Your task to perform on an android device: Go to Android settings Image 0: 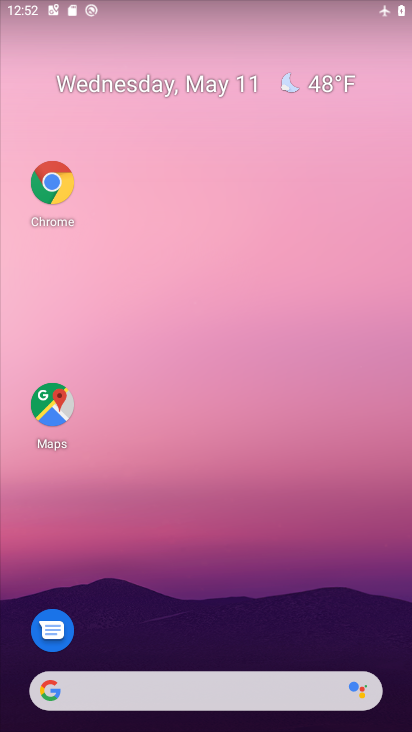
Step 0: drag from (217, 649) to (178, 22)
Your task to perform on an android device: Go to Android settings Image 1: 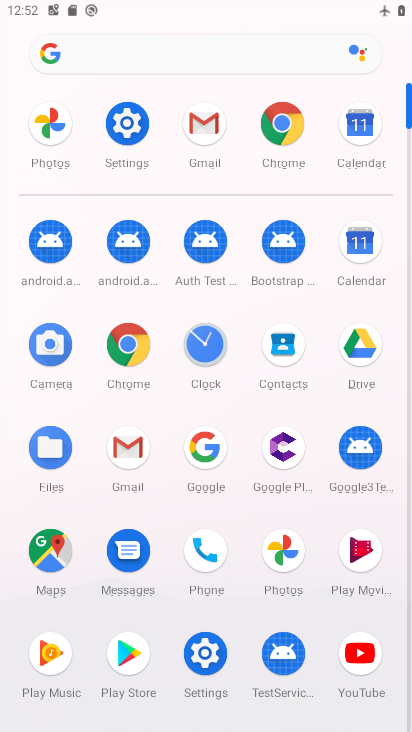
Step 1: click (140, 120)
Your task to perform on an android device: Go to Android settings Image 2: 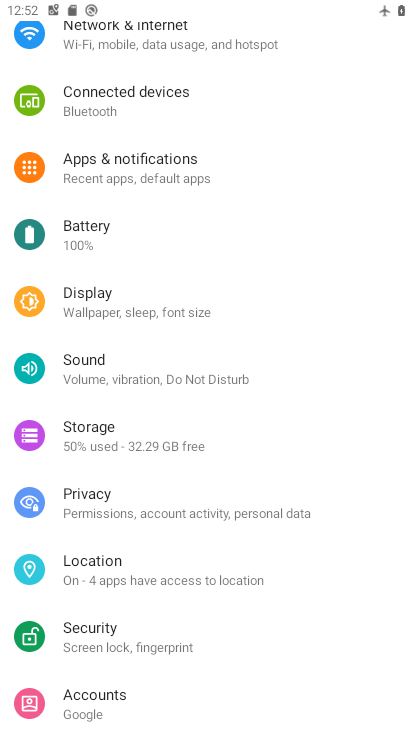
Step 2: drag from (163, 688) to (154, 237)
Your task to perform on an android device: Go to Android settings Image 3: 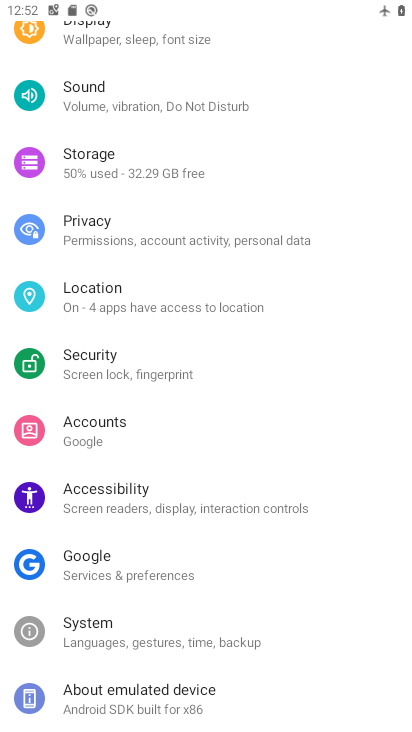
Step 3: click (116, 715)
Your task to perform on an android device: Go to Android settings Image 4: 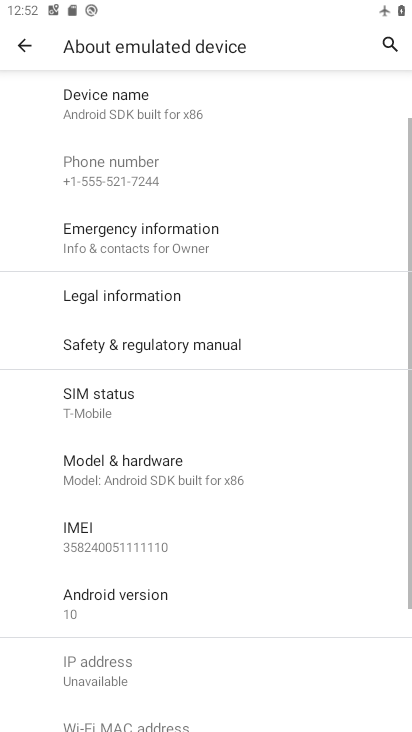
Step 4: drag from (184, 564) to (184, 406)
Your task to perform on an android device: Go to Android settings Image 5: 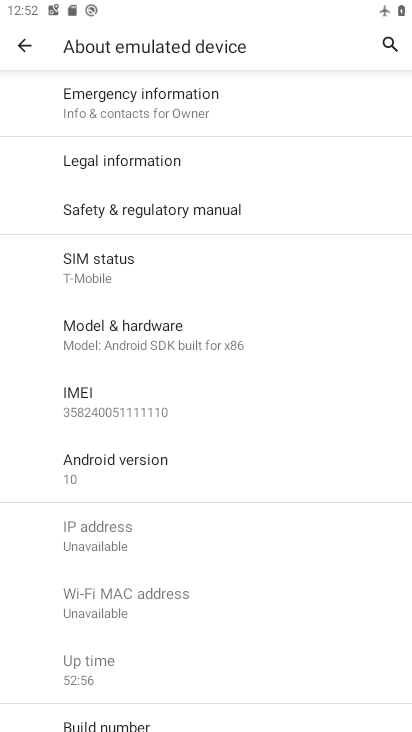
Step 5: click (144, 470)
Your task to perform on an android device: Go to Android settings Image 6: 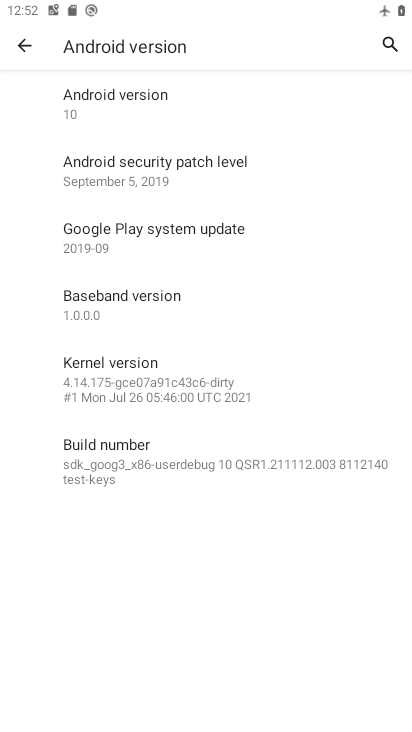
Step 6: task complete